Your task to perform on an android device: What's the price of the TCL TV? Image 0: 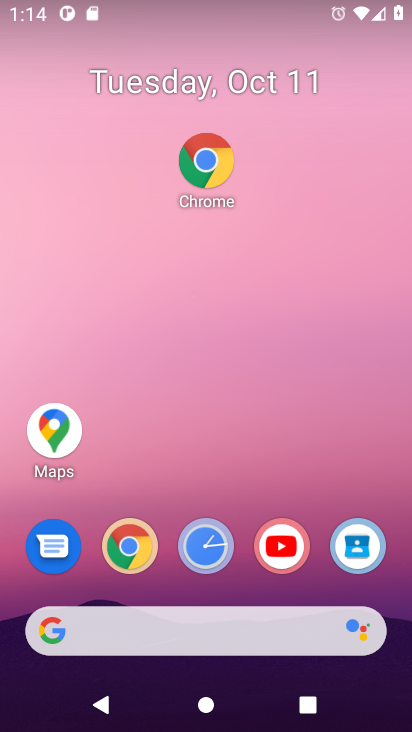
Step 0: click (125, 550)
Your task to perform on an android device: What's the price of the TCL TV? Image 1: 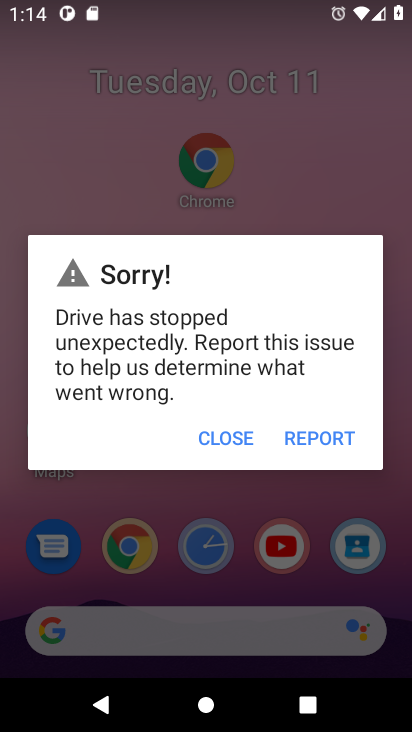
Step 1: click (244, 435)
Your task to perform on an android device: What's the price of the TCL TV? Image 2: 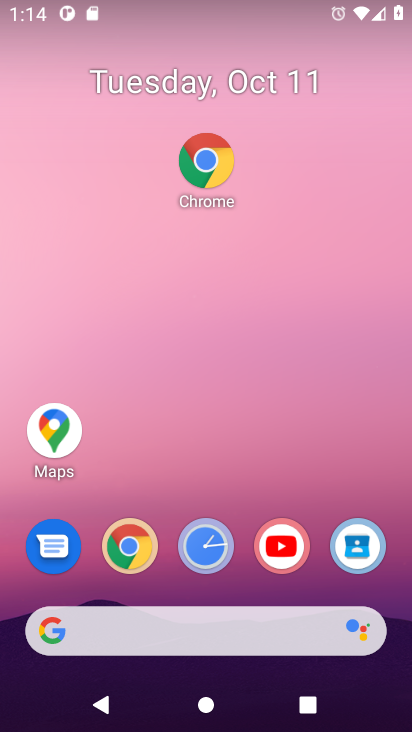
Step 2: click (128, 551)
Your task to perform on an android device: What's the price of the TCL TV? Image 3: 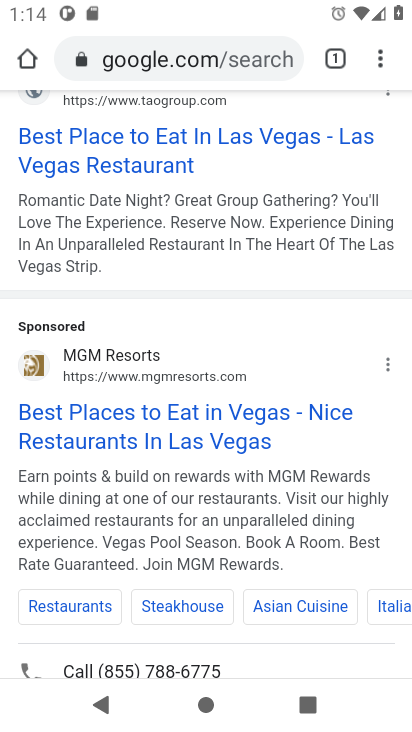
Step 3: click (227, 57)
Your task to perform on an android device: What's the price of the TCL TV? Image 4: 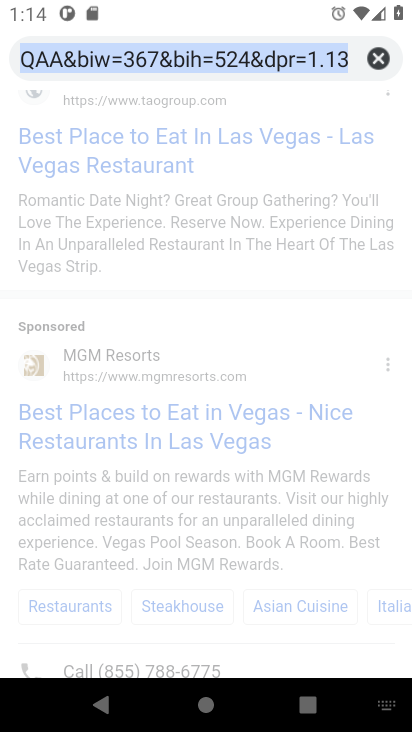
Step 4: type "price of the TCL TV"
Your task to perform on an android device: What's the price of the TCL TV? Image 5: 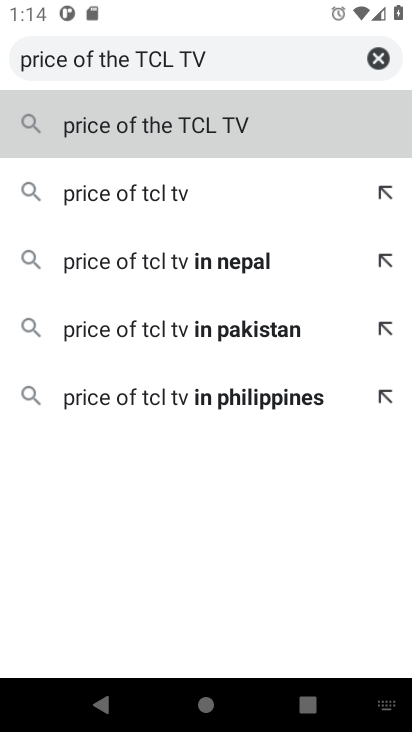
Step 5: press enter
Your task to perform on an android device: What's the price of the TCL TV? Image 6: 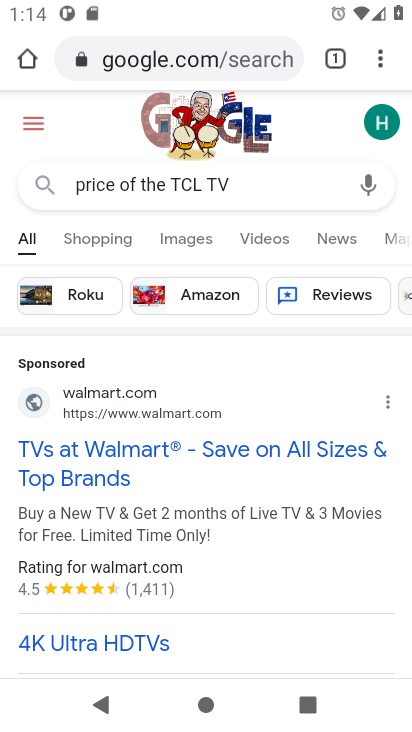
Step 6: click (103, 235)
Your task to perform on an android device: What's the price of the TCL TV? Image 7: 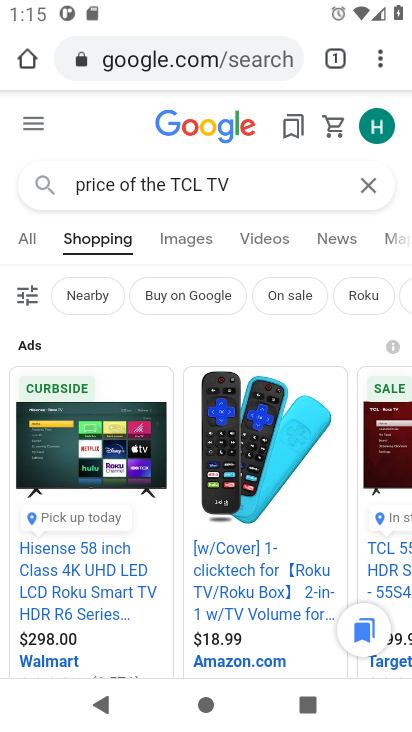
Step 7: drag from (276, 595) to (232, 243)
Your task to perform on an android device: What's the price of the TCL TV? Image 8: 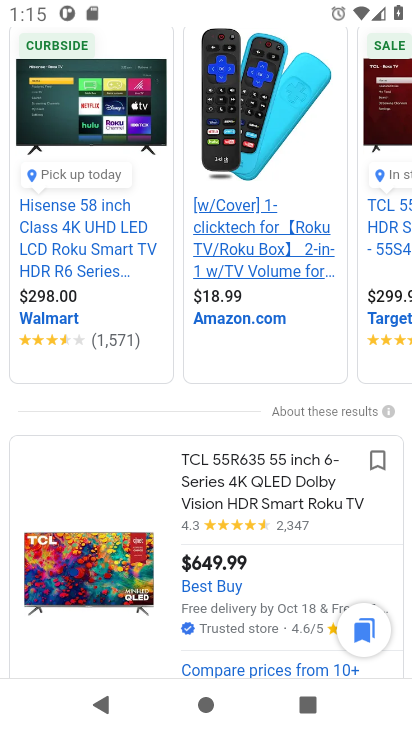
Step 8: drag from (298, 520) to (238, 335)
Your task to perform on an android device: What's the price of the TCL TV? Image 9: 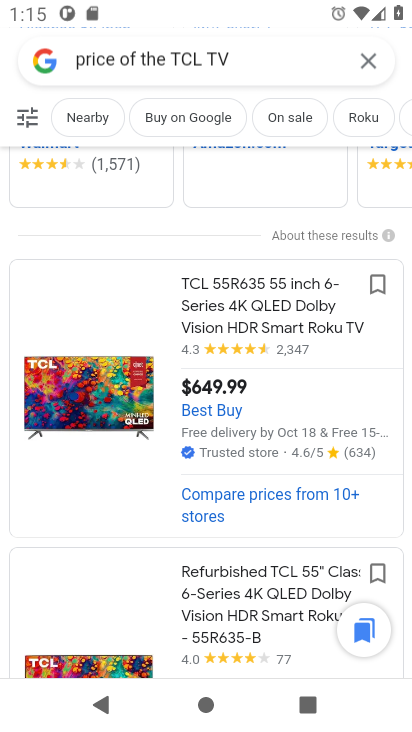
Step 9: click (253, 362)
Your task to perform on an android device: What's the price of the TCL TV? Image 10: 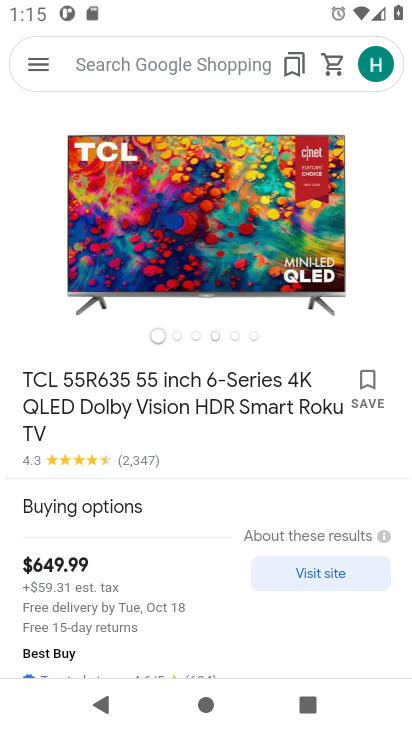
Step 10: task complete